Your task to perform on an android device: Open my contact list Image 0: 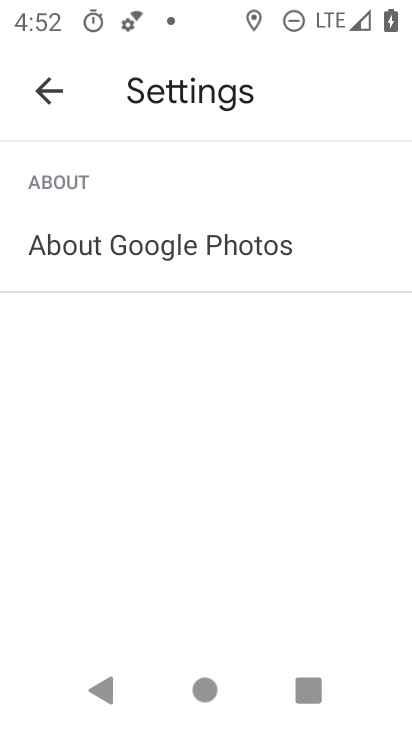
Step 0: press home button
Your task to perform on an android device: Open my contact list Image 1: 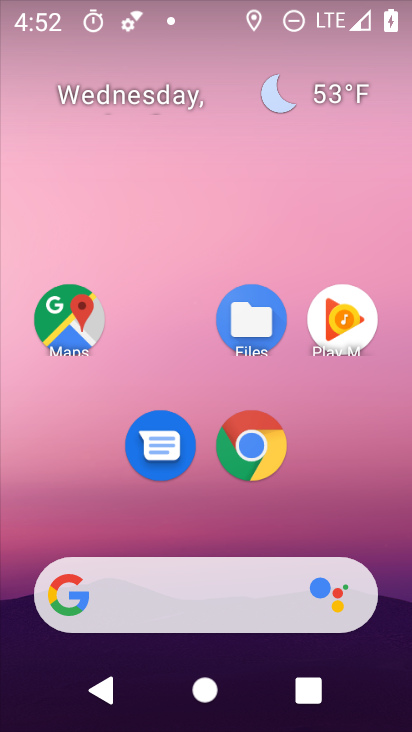
Step 1: drag from (384, 643) to (411, 61)
Your task to perform on an android device: Open my contact list Image 2: 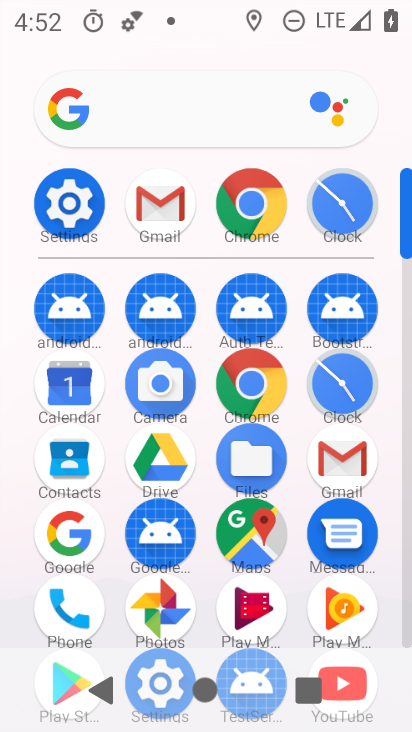
Step 2: click (63, 446)
Your task to perform on an android device: Open my contact list Image 3: 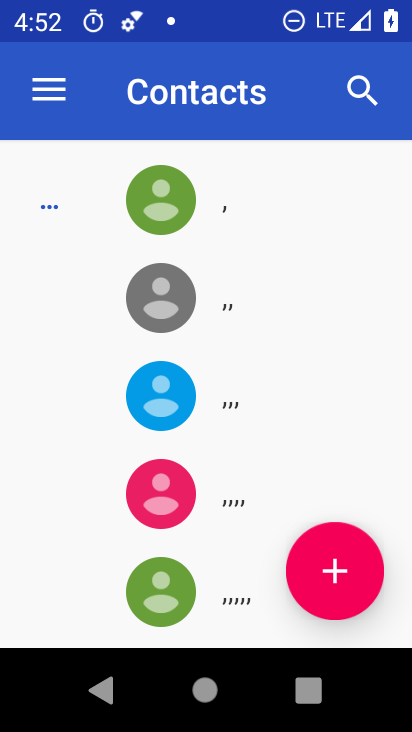
Step 3: drag from (336, 443) to (306, 179)
Your task to perform on an android device: Open my contact list Image 4: 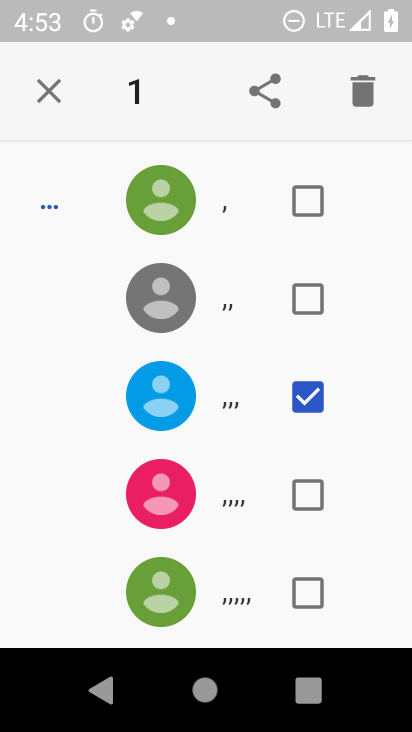
Step 4: click (56, 91)
Your task to perform on an android device: Open my contact list Image 5: 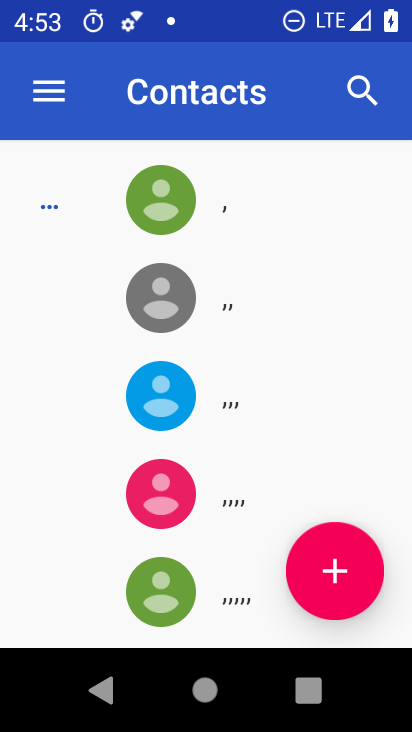
Step 5: task complete